Your task to perform on an android device: Go to privacy settings Image 0: 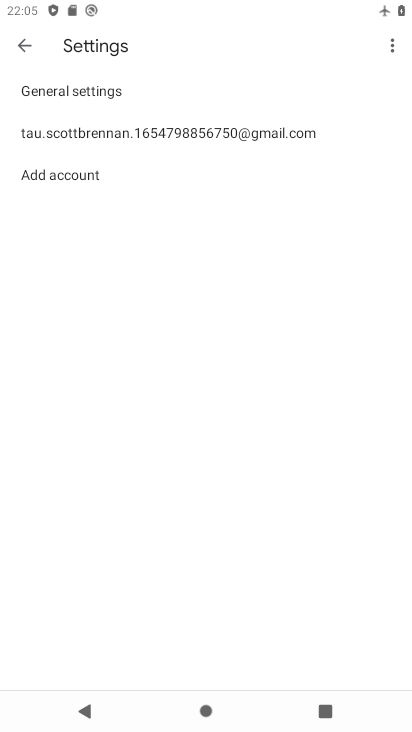
Step 0: press home button
Your task to perform on an android device: Go to privacy settings Image 1: 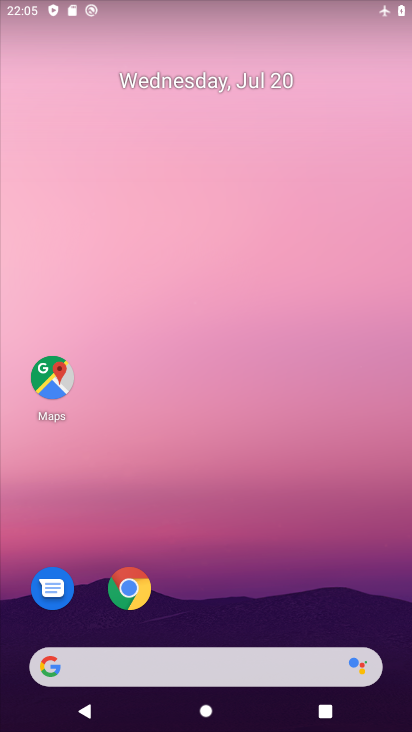
Step 1: drag from (387, 622) to (320, 80)
Your task to perform on an android device: Go to privacy settings Image 2: 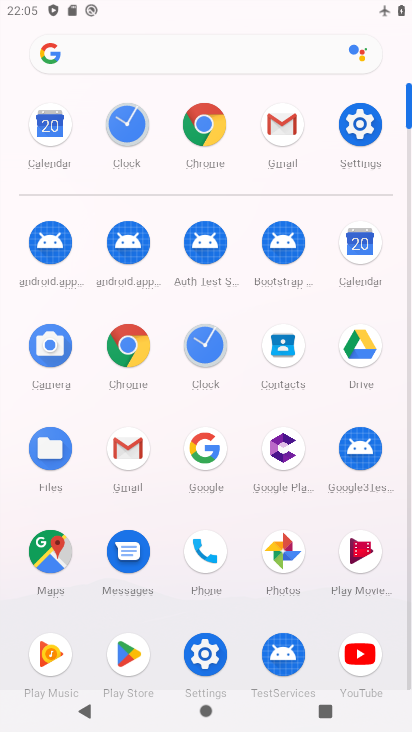
Step 2: click (206, 657)
Your task to perform on an android device: Go to privacy settings Image 3: 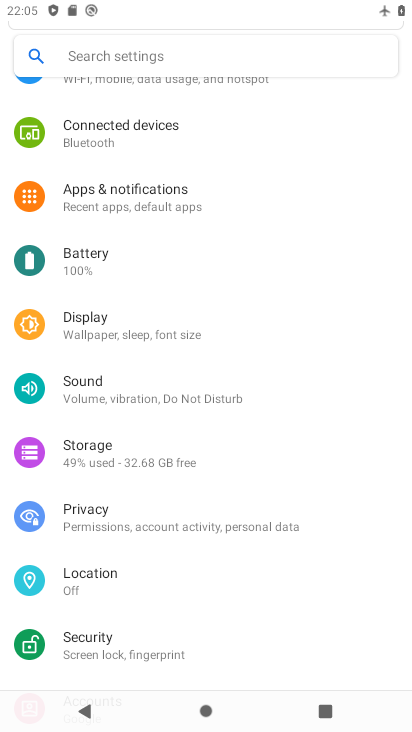
Step 3: click (89, 506)
Your task to perform on an android device: Go to privacy settings Image 4: 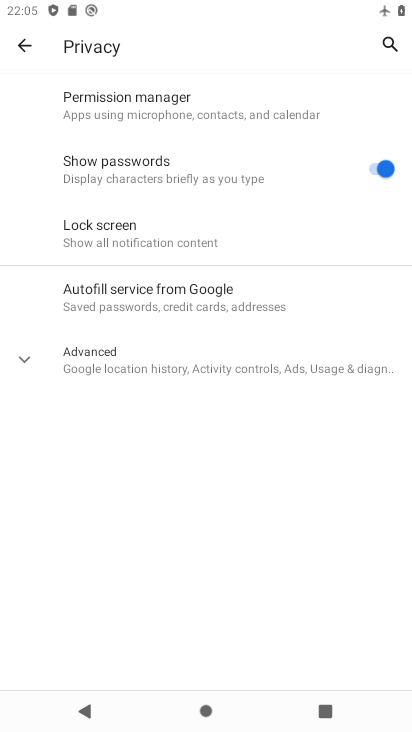
Step 4: click (24, 362)
Your task to perform on an android device: Go to privacy settings Image 5: 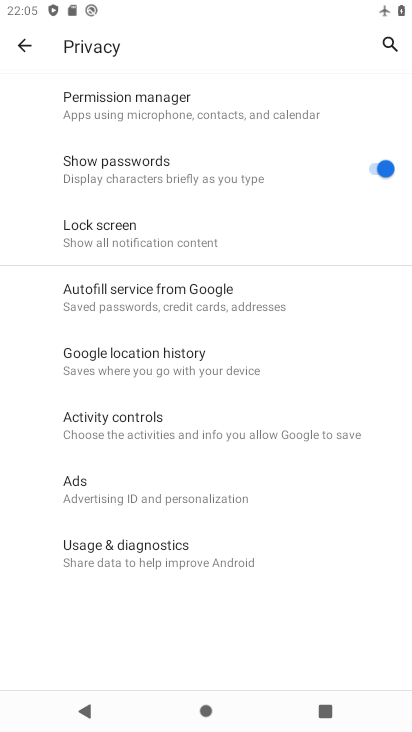
Step 5: task complete